Your task to perform on an android device: turn on sleep mode Image 0: 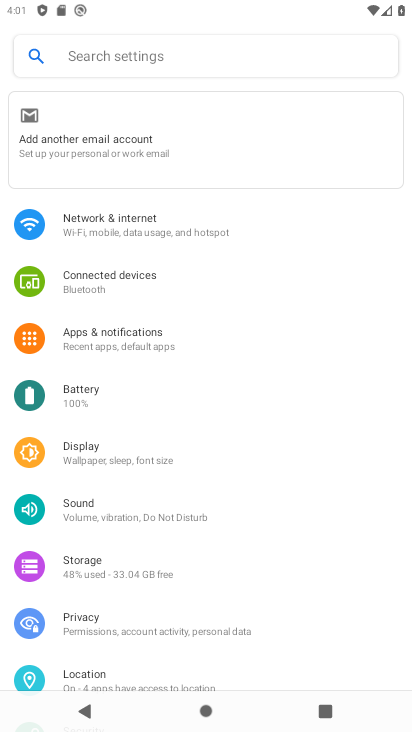
Step 0: click (86, 448)
Your task to perform on an android device: turn on sleep mode Image 1: 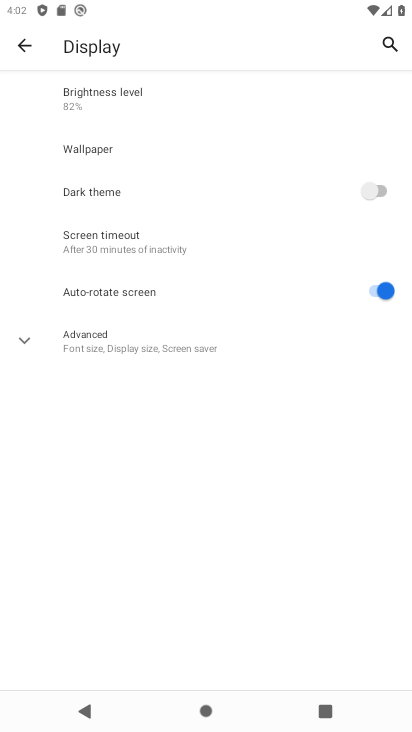
Step 1: click (41, 336)
Your task to perform on an android device: turn on sleep mode Image 2: 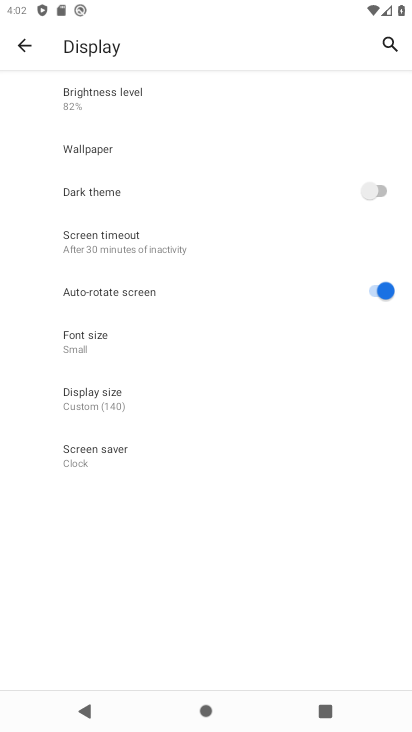
Step 2: task complete